Your task to perform on an android device: Open the web browser Image 0: 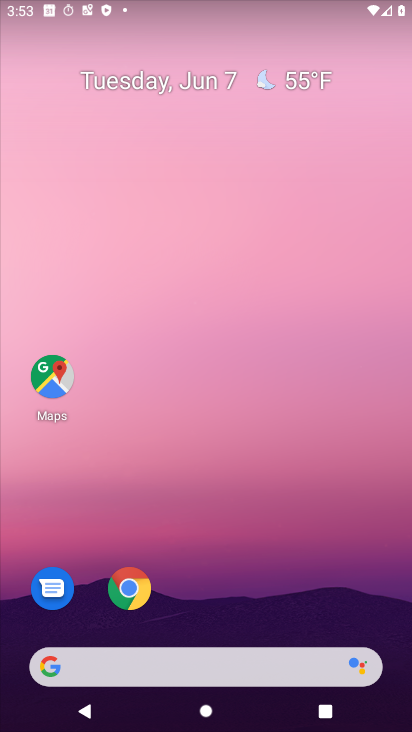
Step 0: click (49, 666)
Your task to perform on an android device: Open the web browser Image 1: 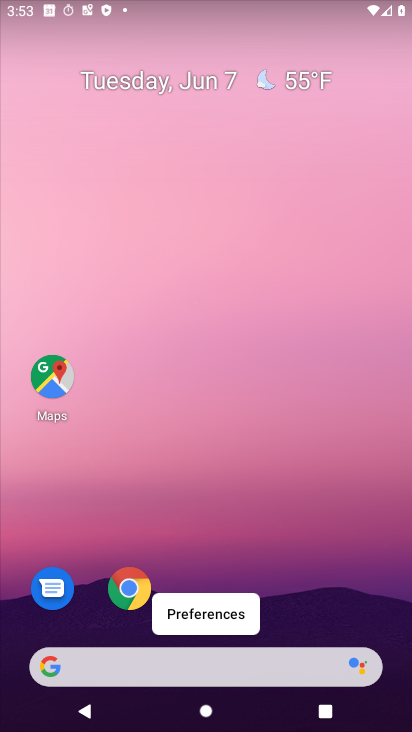
Step 1: click (49, 666)
Your task to perform on an android device: Open the web browser Image 2: 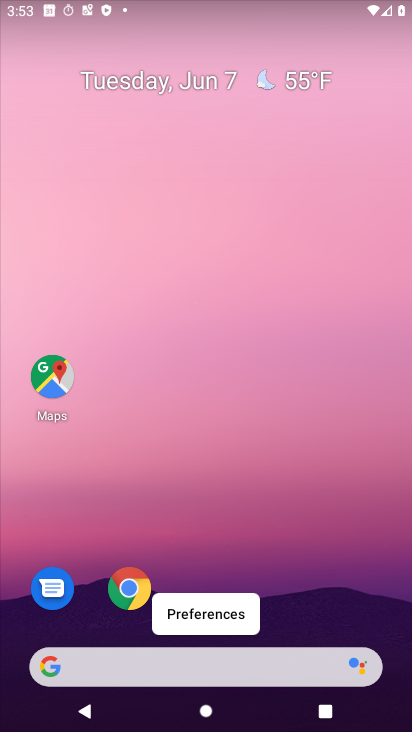
Step 2: drag from (321, 628) to (327, 222)
Your task to perform on an android device: Open the web browser Image 3: 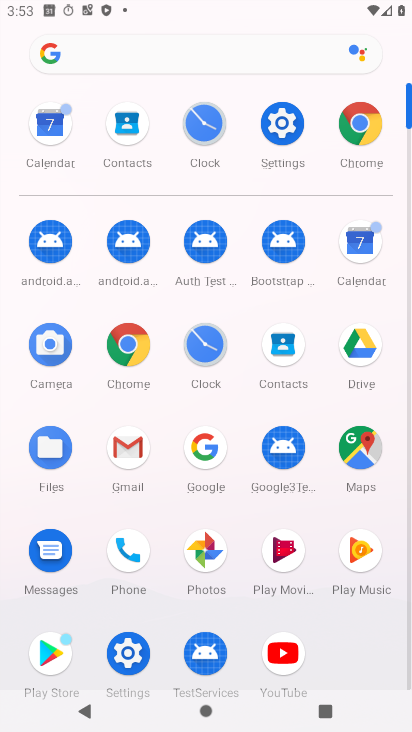
Step 3: click (213, 450)
Your task to perform on an android device: Open the web browser Image 4: 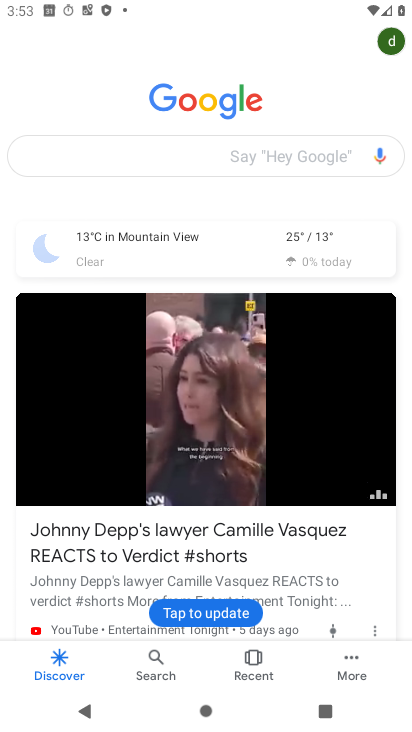
Step 4: task complete